Your task to perform on an android device: Open my contact list Image 0: 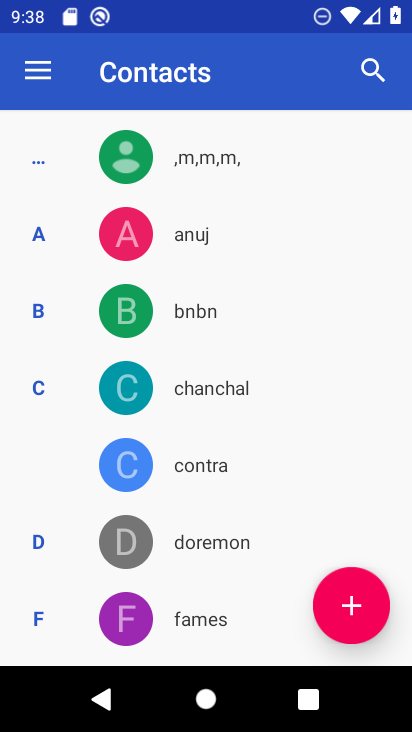
Step 0: press home button
Your task to perform on an android device: Open my contact list Image 1: 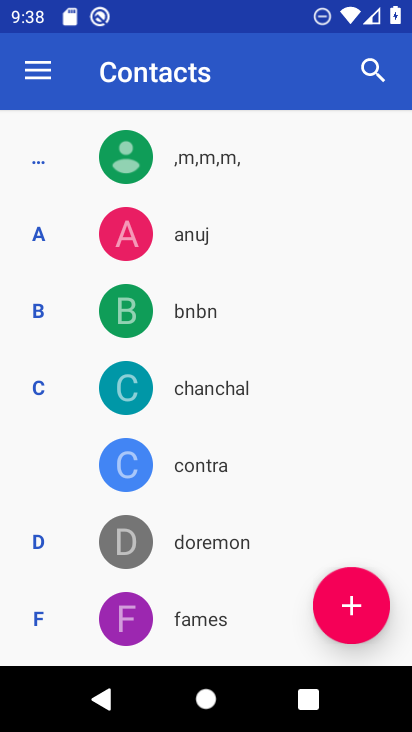
Step 1: press home button
Your task to perform on an android device: Open my contact list Image 2: 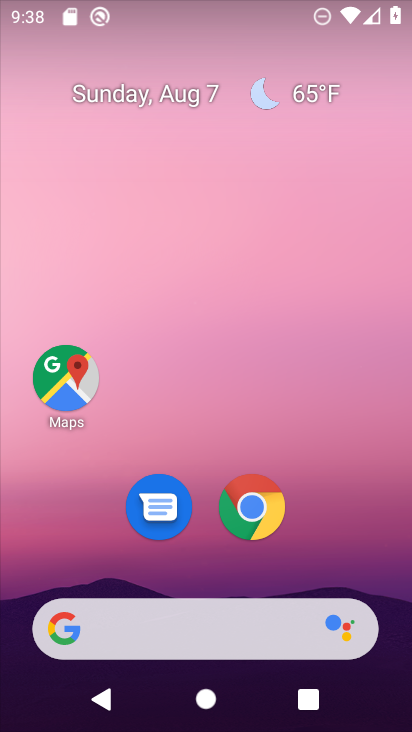
Step 2: drag from (337, 558) to (144, 1)
Your task to perform on an android device: Open my contact list Image 3: 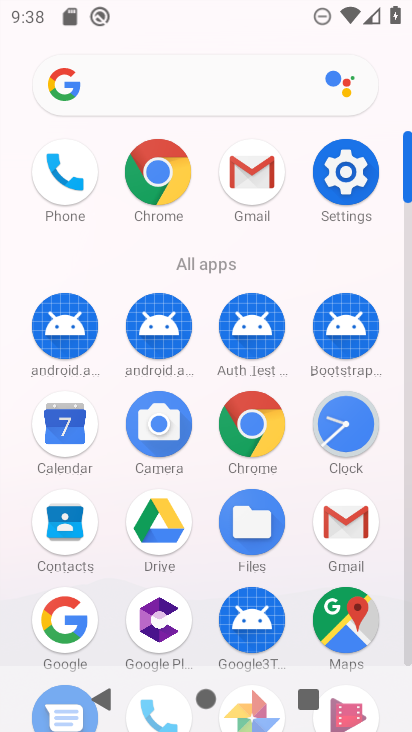
Step 3: drag from (296, 484) to (323, 183)
Your task to perform on an android device: Open my contact list Image 4: 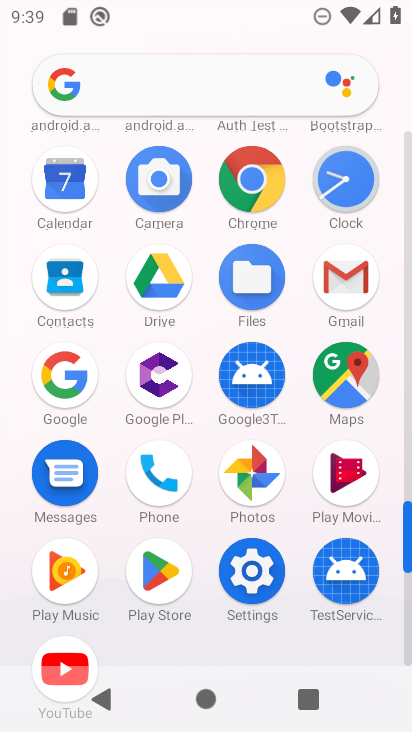
Step 4: click (326, 279)
Your task to perform on an android device: Open my contact list Image 5: 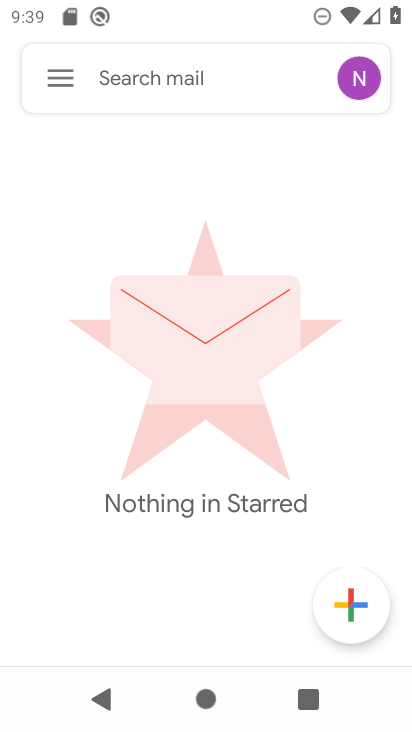
Step 5: press home button
Your task to perform on an android device: Open my contact list Image 6: 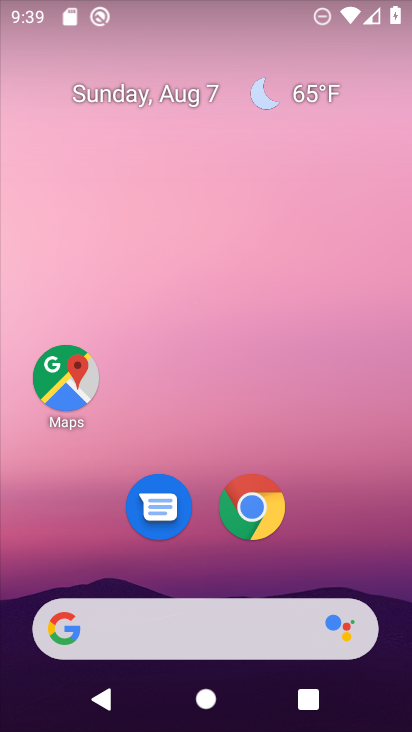
Step 6: drag from (339, 506) to (304, 0)
Your task to perform on an android device: Open my contact list Image 7: 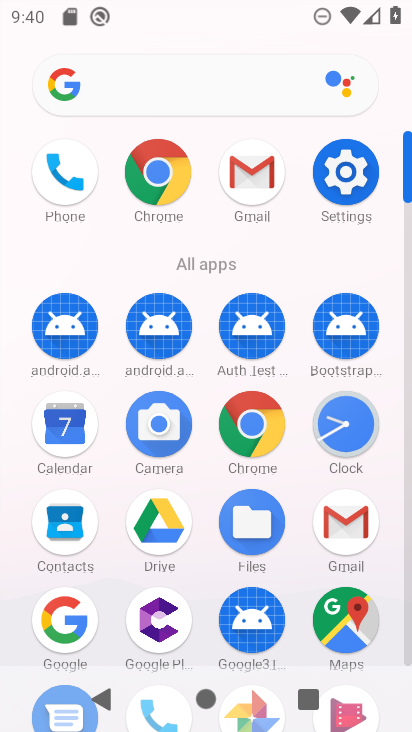
Step 7: click (63, 523)
Your task to perform on an android device: Open my contact list Image 8: 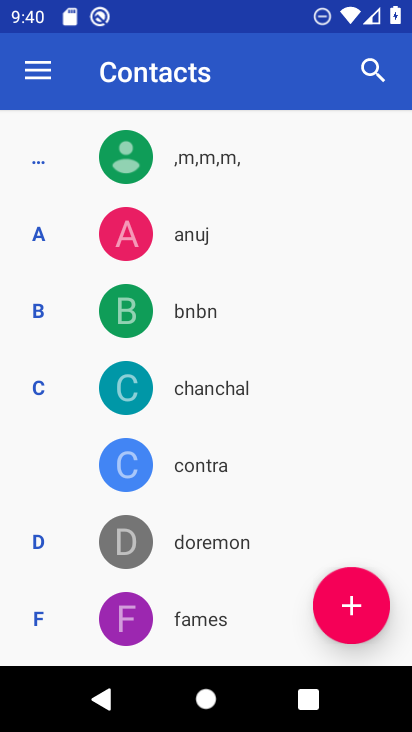
Step 8: task complete